Your task to perform on an android device: Open calendar and show me the second week of next month Image 0: 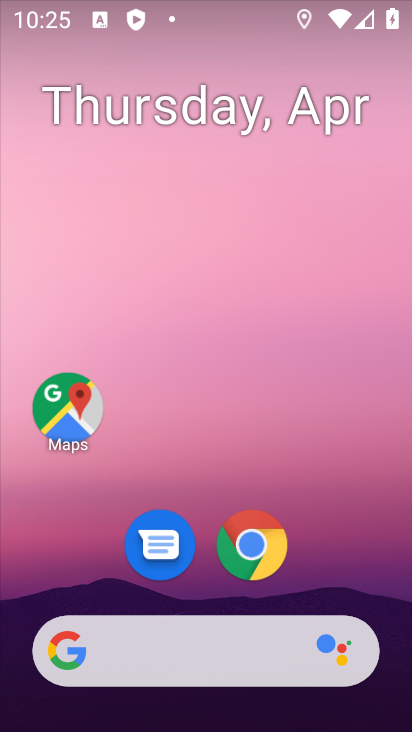
Step 0: drag from (105, 356) to (184, 239)
Your task to perform on an android device: Open calendar and show me the second week of next month Image 1: 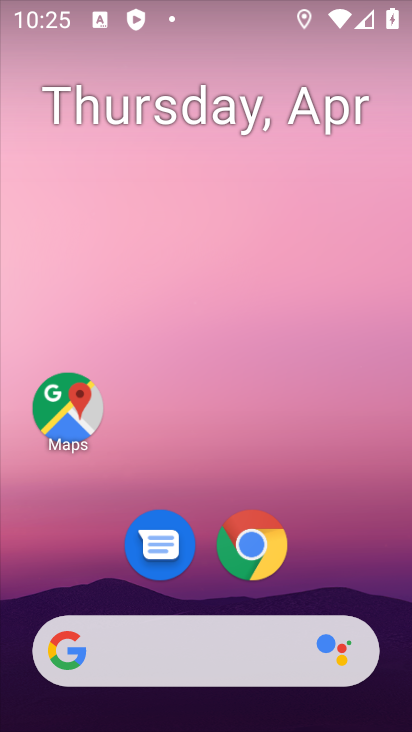
Step 1: drag from (155, 288) to (234, 172)
Your task to perform on an android device: Open calendar and show me the second week of next month Image 2: 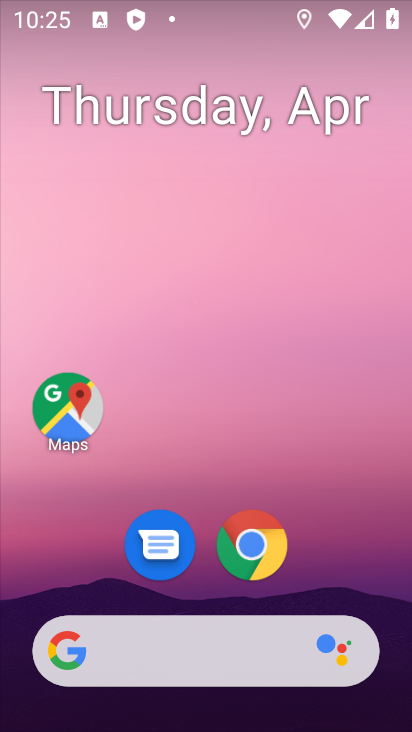
Step 2: drag from (50, 537) to (241, 279)
Your task to perform on an android device: Open calendar and show me the second week of next month Image 3: 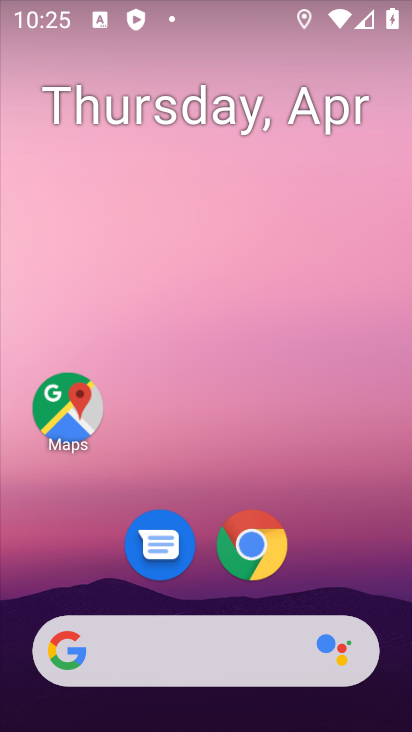
Step 3: drag from (217, 295) to (289, 191)
Your task to perform on an android device: Open calendar and show me the second week of next month Image 4: 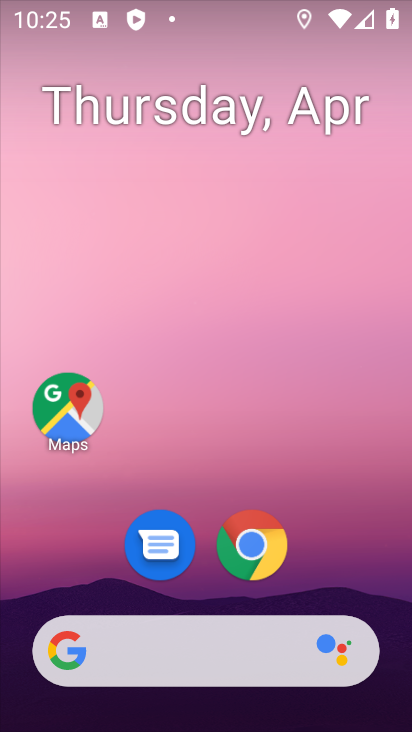
Step 4: drag from (1, 690) to (275, 208)
Your task to perform on an android device: Open calendar and show me the second week of next month Image 5: 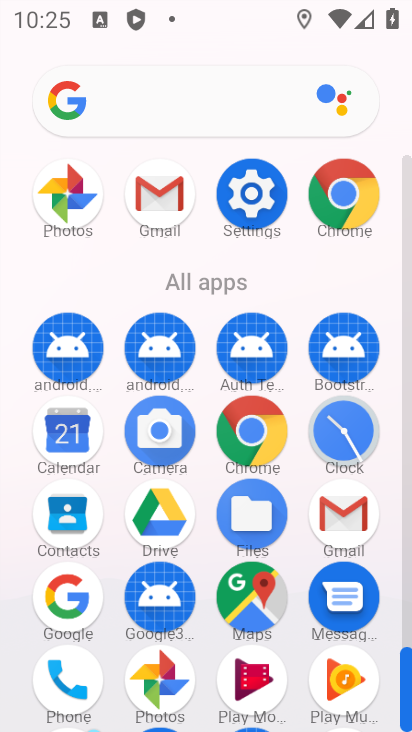
Step 5: click (88, 439)
Your task to perform on an android device: Open calendar and show me the second week of next month Image 6: 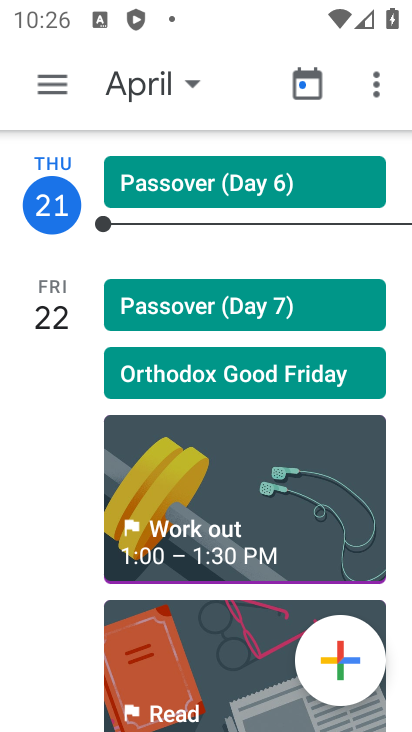
Step 6: click (157, 71)
Your task to perform on an android device: Open calendar and show me the second week of next month Image 7: 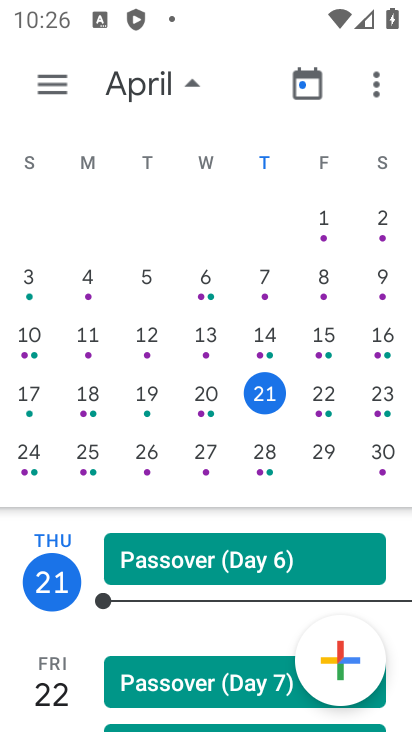
Step 7: task complete